Your task to perform on an android device: turn off airplane mode Image 0: 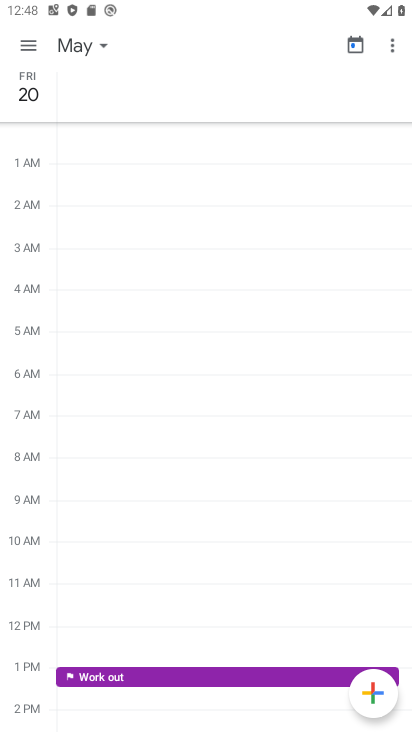
Step 0: drag from (342, 2) to (361, 600)
Your task to perform on an android device: turn off airplane mode Image 1: 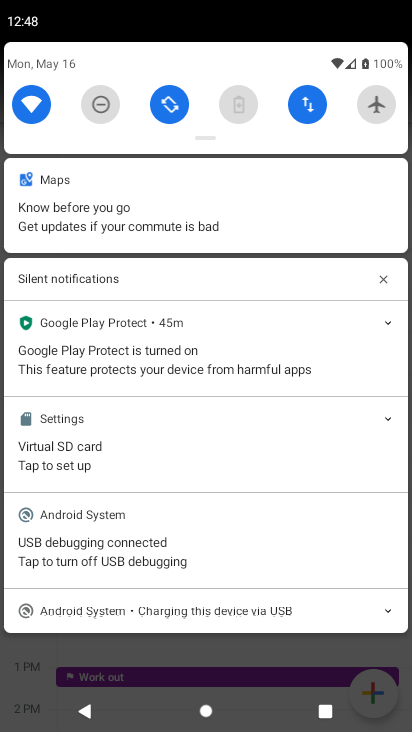
Step 1: task complete